Your task to perform on an android device: Open location settings Image 0: 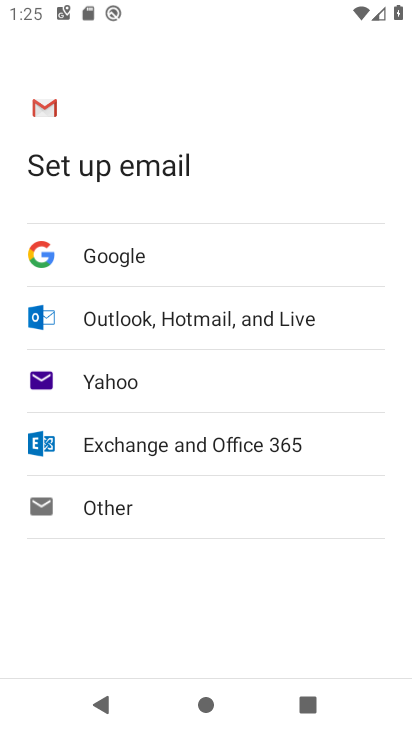
Step 0: press home button
Your task to perform on an android device: Open location settings Image 1: 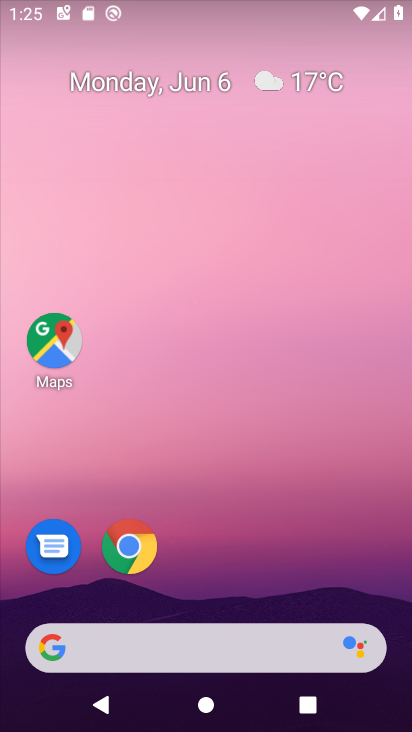
Step 1: drag from (198, 645) to (245, 228)
Your task to perform on an android device: Open location settings Image 2: 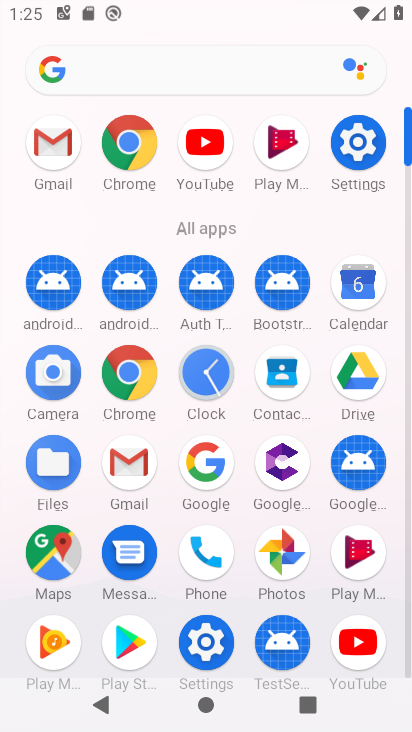
Step 2: click (359, 156)
Your task to perform on an android device: Open location settings Image 3: 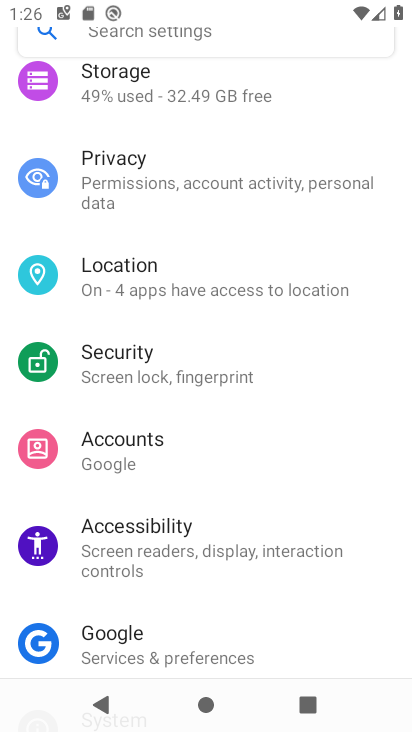
Step 3: click (294, 299)
Your task to perform on an android device: Open location settings Image 4: 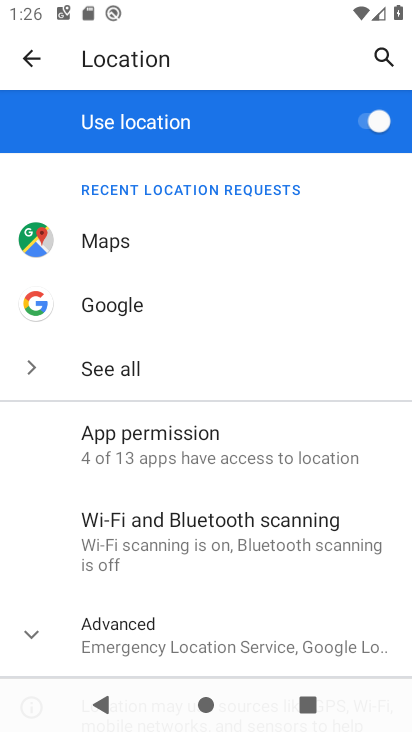
Step 4: task complete